Your task to perform on an android device: Go to Yahoo.com Image 0: 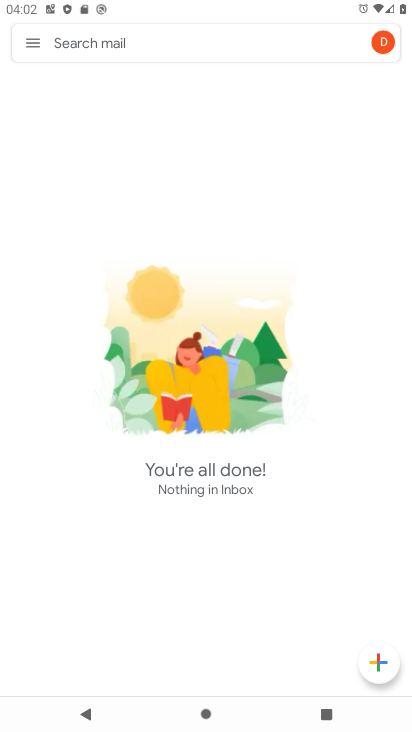
Step 0: click (37, 50)
Your task to perform on an android device: Go to Yahoo.com Image 1: 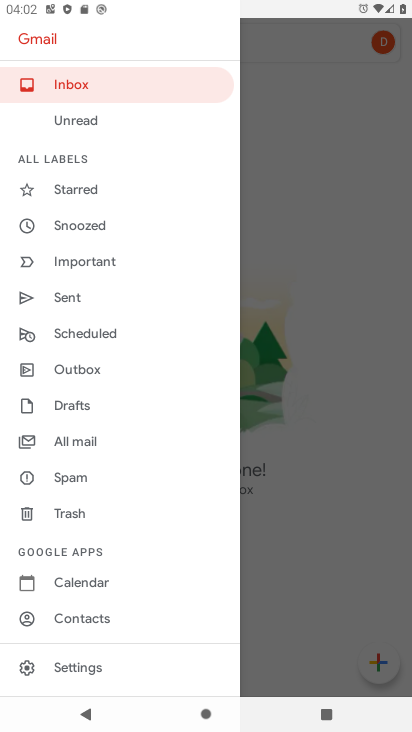
Step 1: press home button
Your task to perform on an android device: Go to Yahoo.com Image 2: 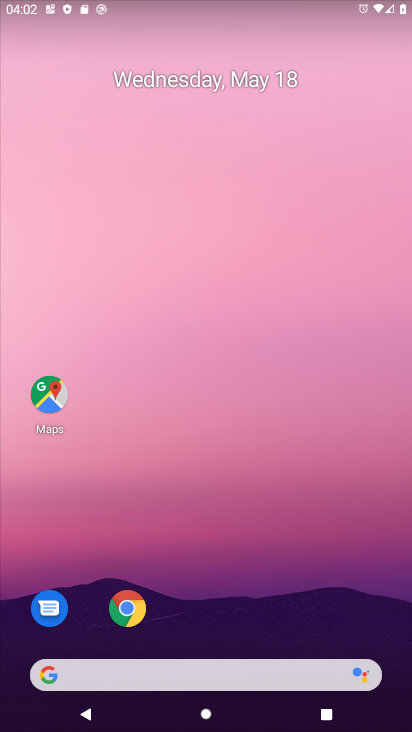
Step 2: click (138, 618)
Your task to perform on an android device: Go to Yahoo.com Image 3: 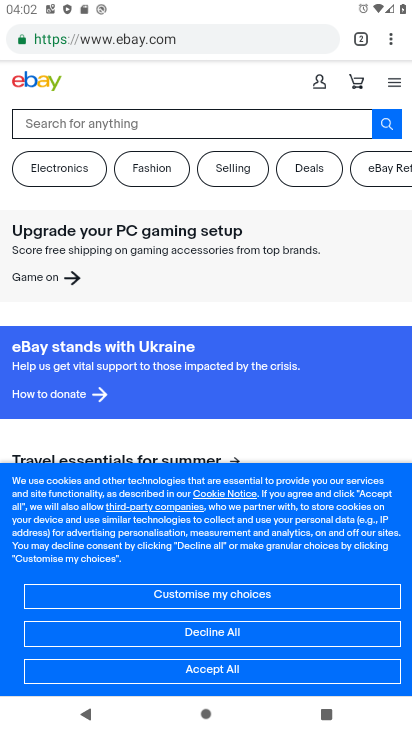
Step 3: click (363, 49)
Your task to perform on an android device: Go to Yahoo.com Image 4: 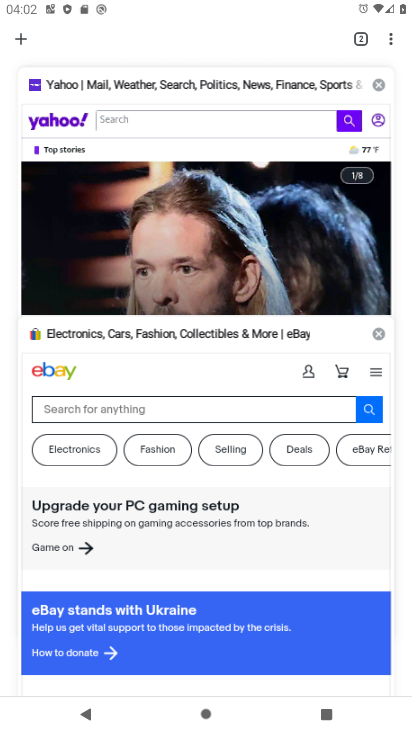
Step 4: click (66, 241)
Your task to perform on an android device: Go to Yahoo.com Image 5: 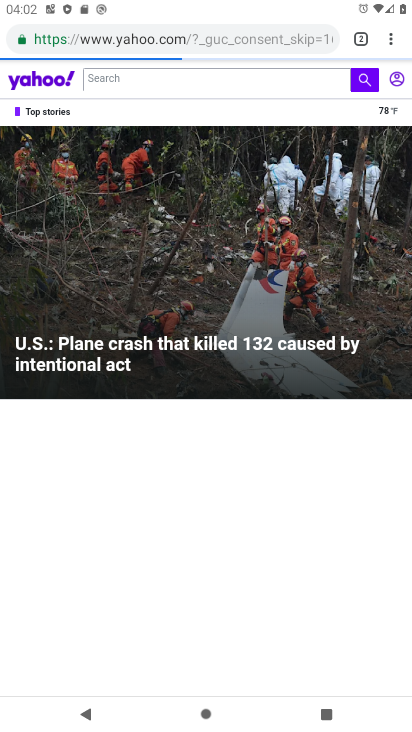
Step 5: task complete